Your task to perform on an android device: Open Yahoo.com Image 0: 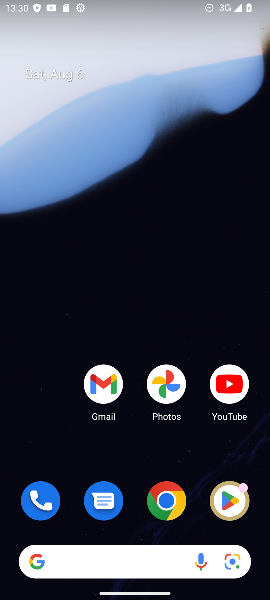
Step 0: click (167, 502)
Your task to perform on an android device: Open Yahoo.com Image 1: 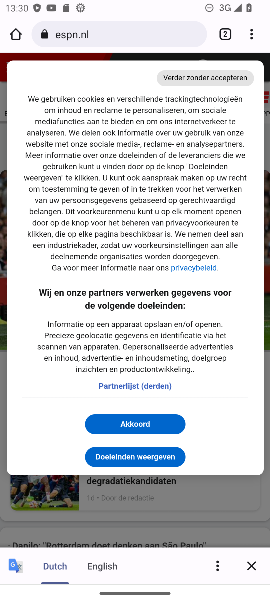
Step 1: click (75, 29)
Your task to perform on an android device: Open Yahoo.com Image 2: 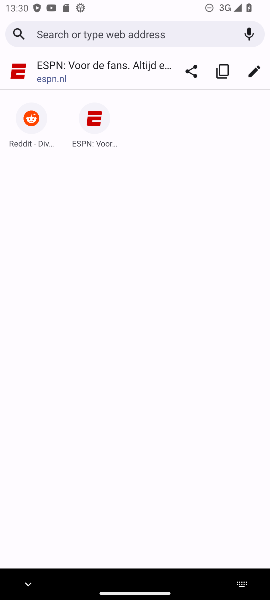
Step 2: type "www.yahoo.com"
Your task to perform on an android device: Open Yahoo.com Image 3: 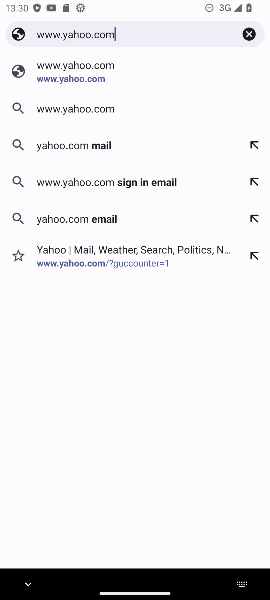
Step 3: click (95, 66)
Your task to perform on an android device: Open Yahoo.com Image 4: 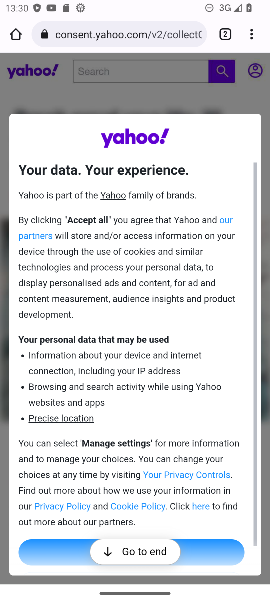
Step 4: task complete